Your task to perform on an android device: manage bookmarks in the chrome app Image 0: 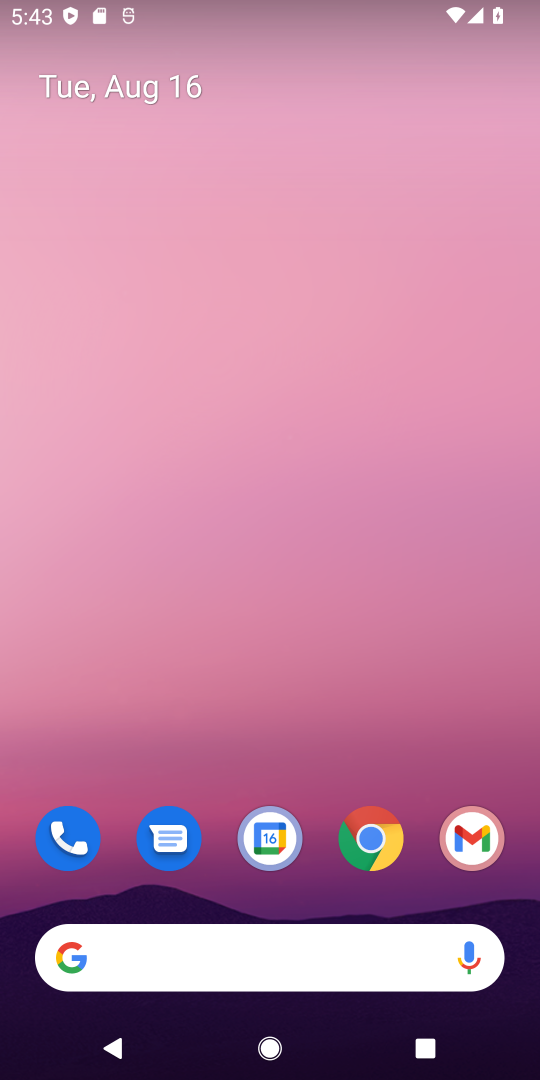
Step 0: click (369, 836)
Your task to perform on an android device: manage bookmarks in the chrome app Image 1: 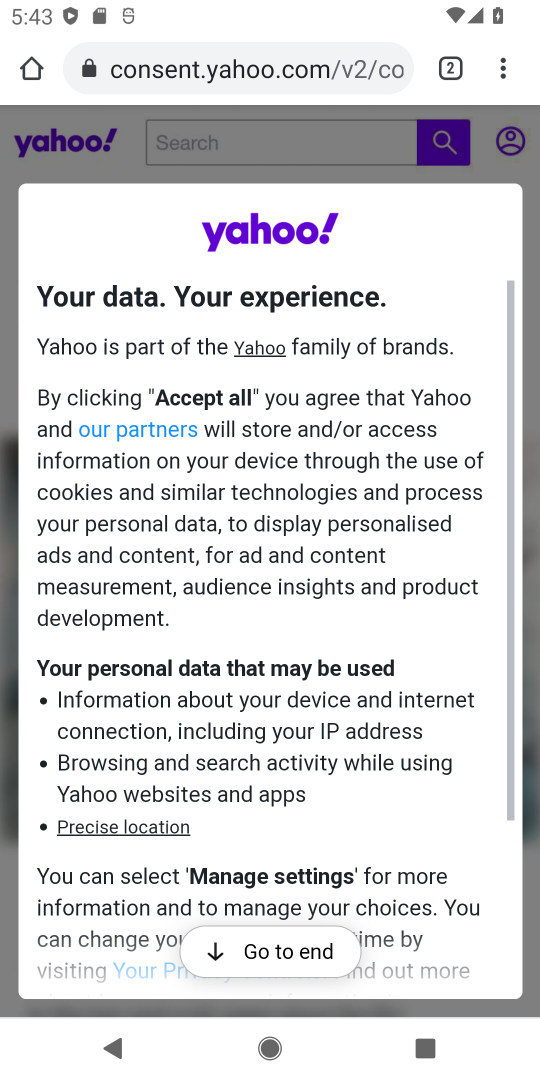
Step 1: drag from (500, 62) to (328, 492)
Your task to perform on an android device: manage bookmarks in the chrome app Image 2: 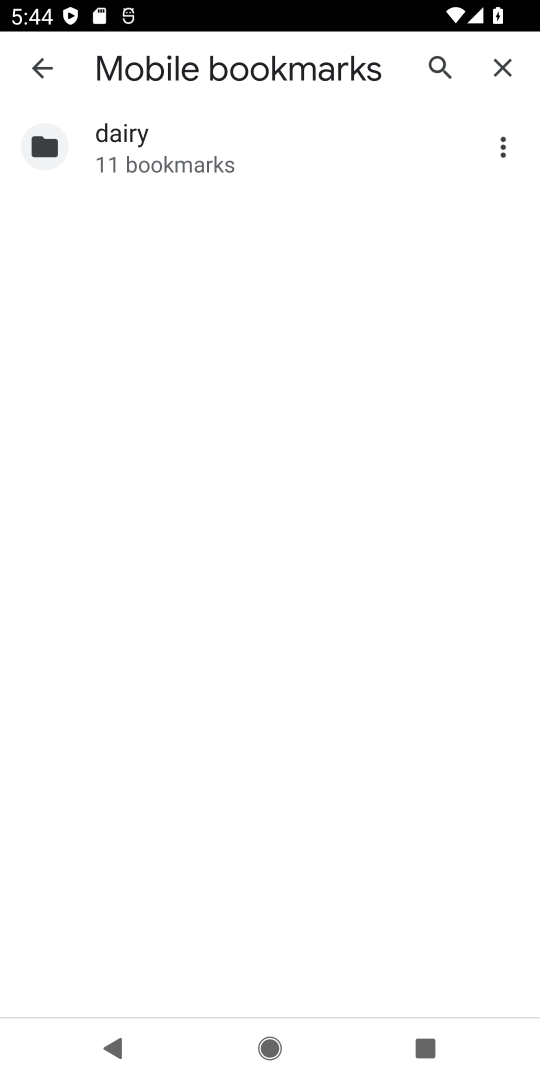
Step 2: click (202, 159)
Your task to perform on an android device: manage bookmarks in the chrome app Image 3: 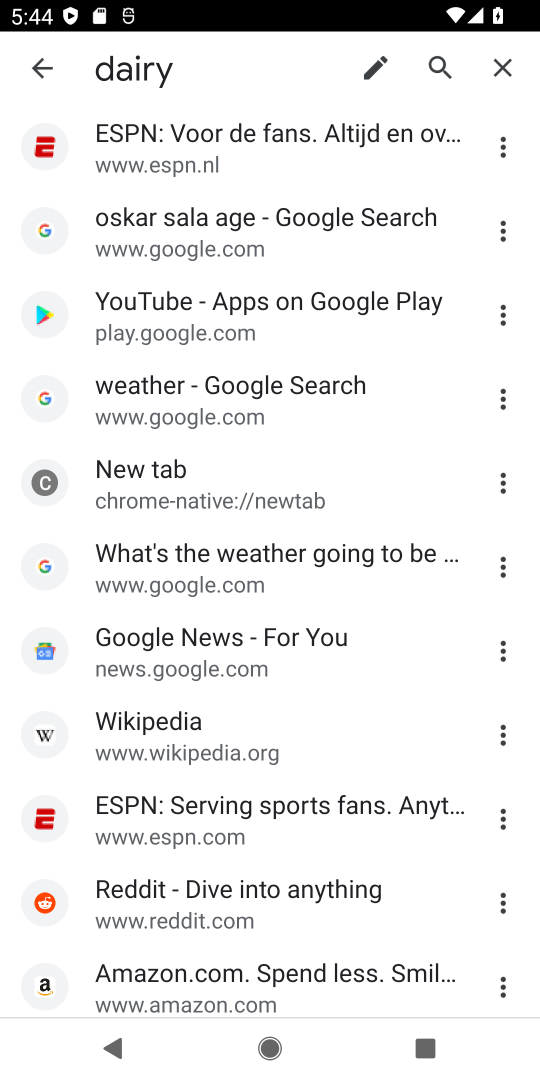
Step 3: click (206, 152)
Your task to perform on an android device: manage bookmarks in the chrome app Image 4: 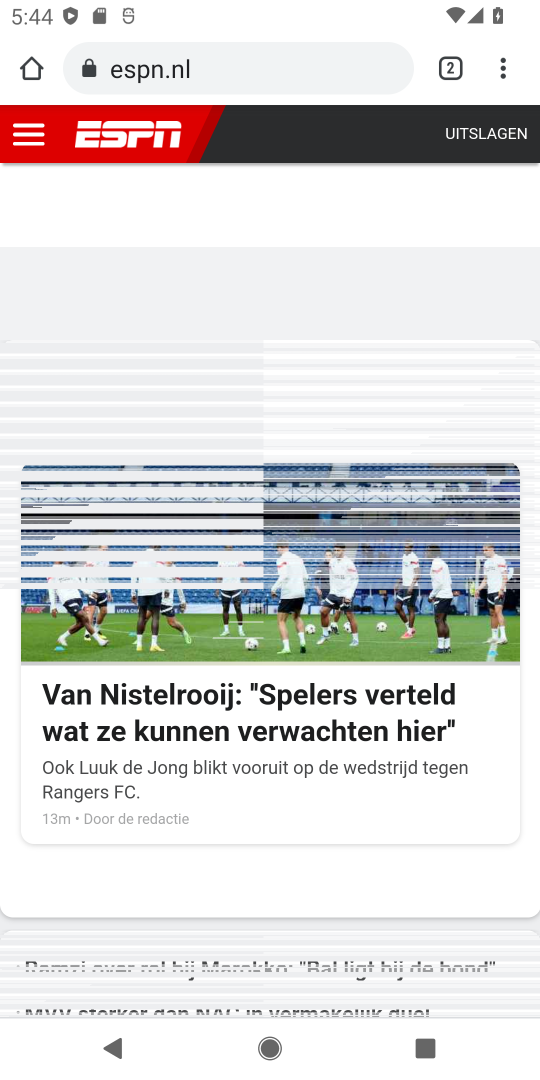
Step 4: click (494, 63)
Your task to perform on an android device: manage bookmarks in the chrome app Image 5: 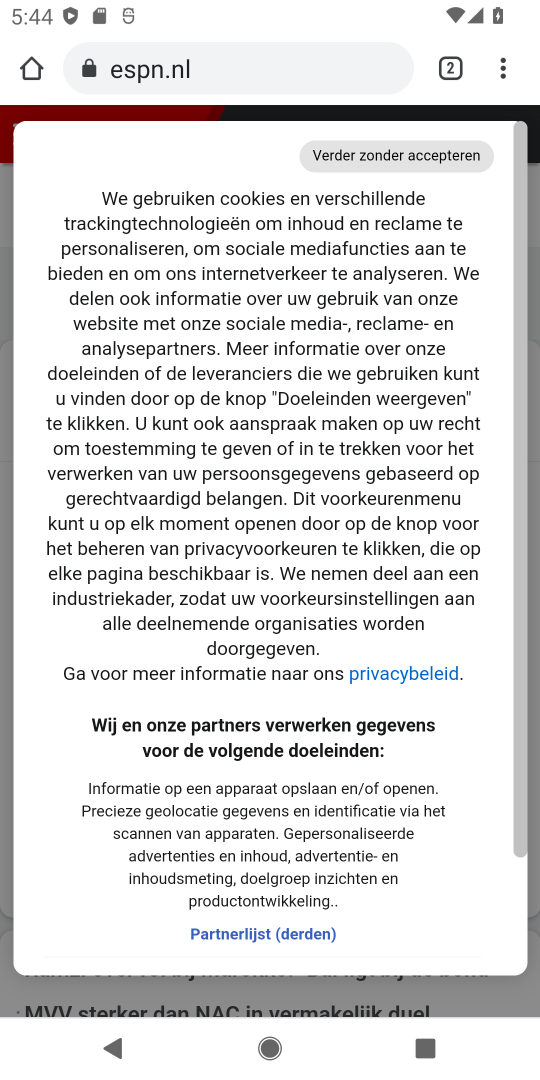
Step 5: drag from (507, 73) to (299, 488)
Your task to perform on an android device: manage bookmarks in the chrome app Image 6: 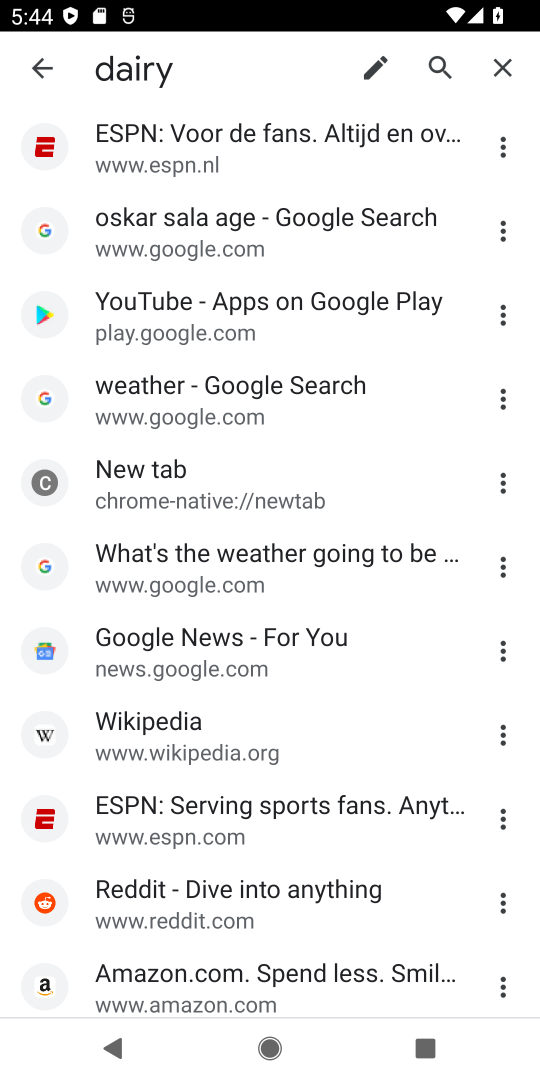
Step 6: click (503, 310)
Your task to perform on an android device: manage bookmarks in the chrome app Image 7: 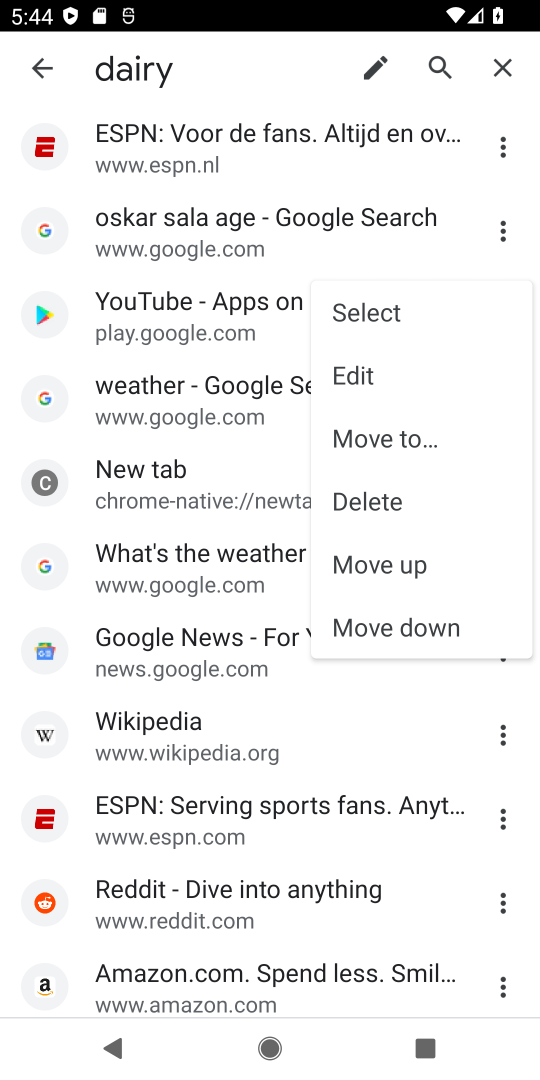
Step 7: click (391, 511)
Your task to perform on an android device: manage bookmarks in the chrome app Image 8: 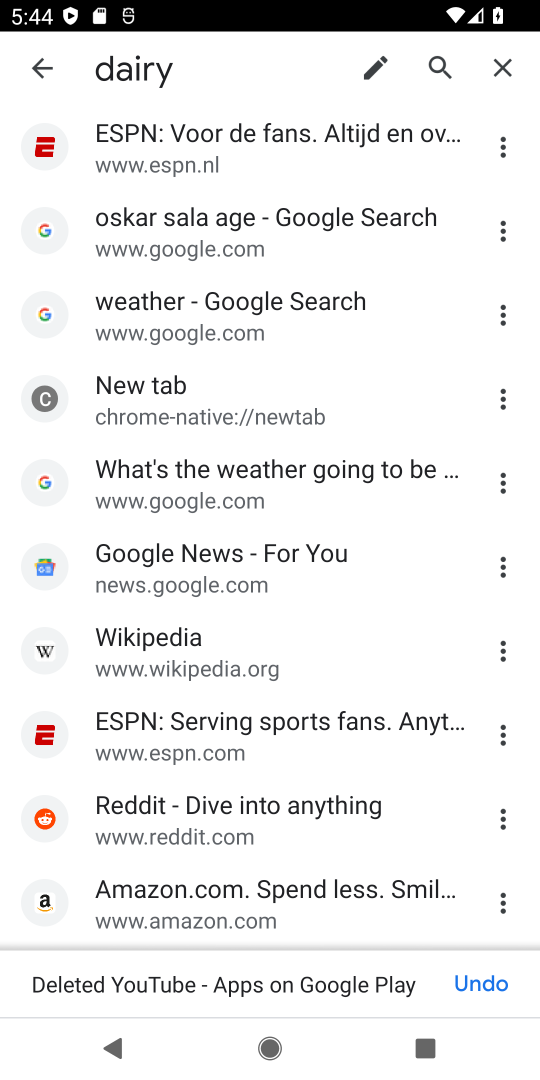
Step 8: task complete